Your task to perform on an android device: check the backup settings in the google photos Image 0: 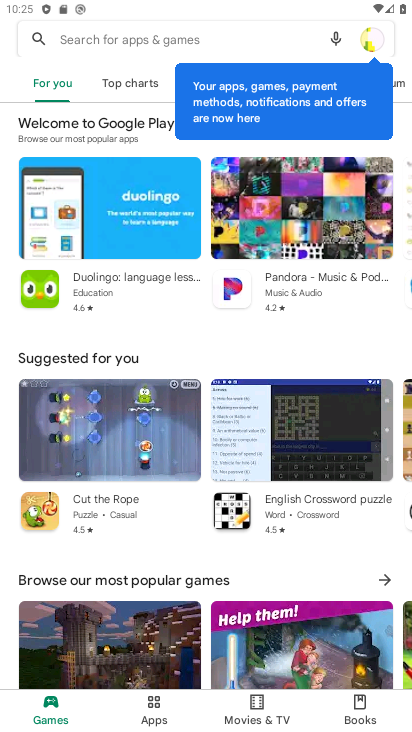
Step 0: press home button
Your task to perform on an android device: check the backup settings in the google photos Image 1: 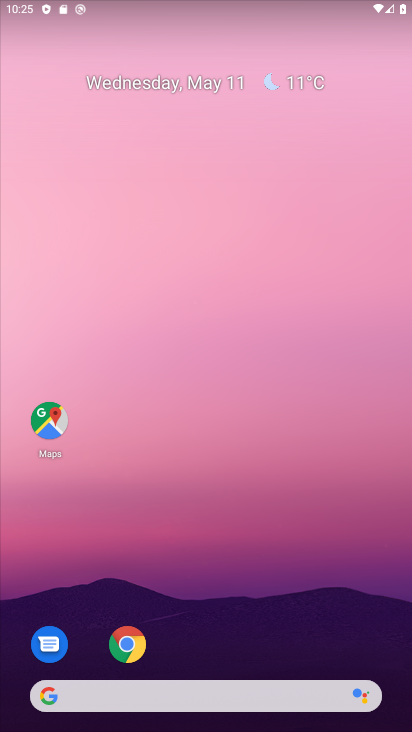
Step 1: drag from (225, 655) to (240, 132)
Your task to perform on an android device: check the backup settings in the google photos Image 2: 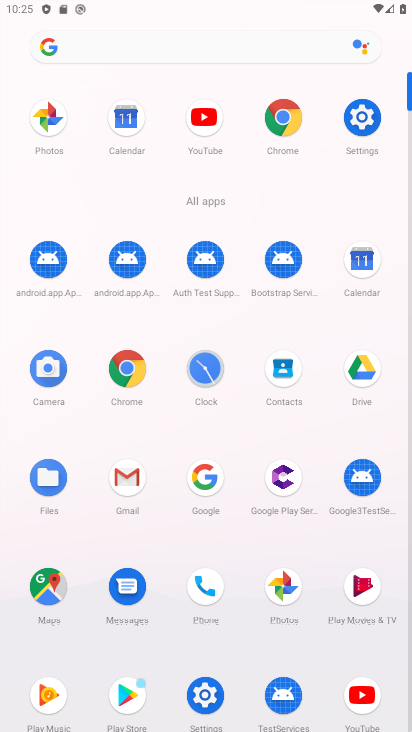
Step 2: click (283, 578)
Your task to perform on an android device: check the backup settings in the google photos Image 3: 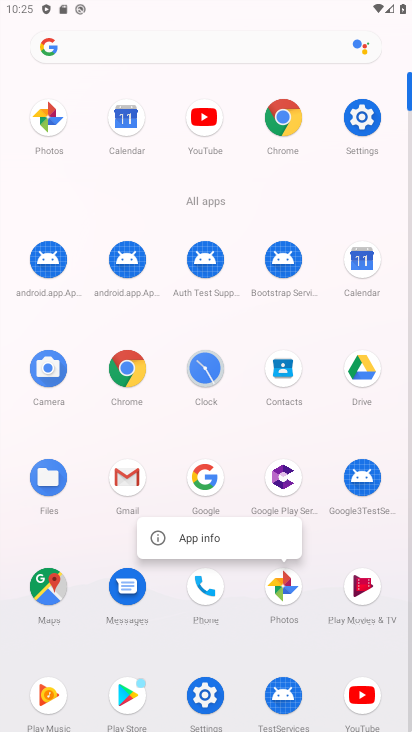
Step 3: click (287, 586)
Your task to perform on an android device: check the backup settings in the google photos Image 4: 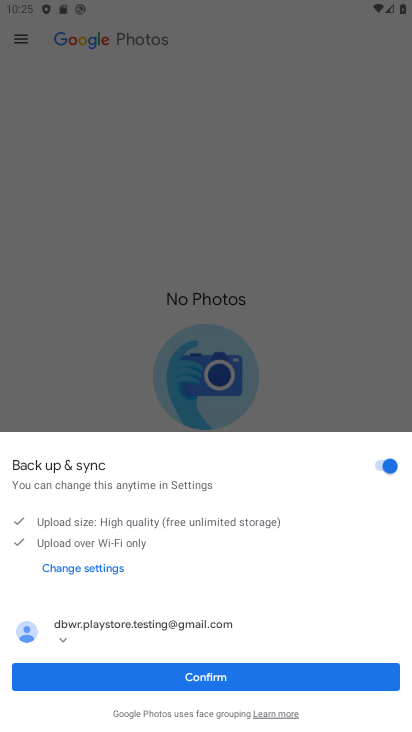
Step 4: click (206, 677)
Your task to perform on an android device: check the backup settings in the google photos Image 5: 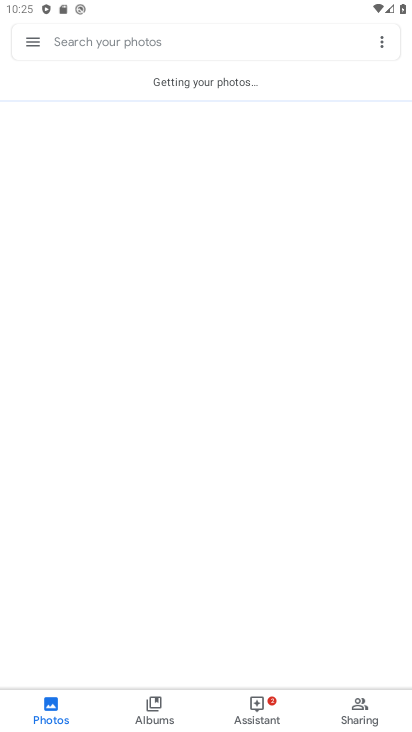
Step 5: click (27, 38)
Your task to perform on an android device: check the backup settings in the google photos Image 6: 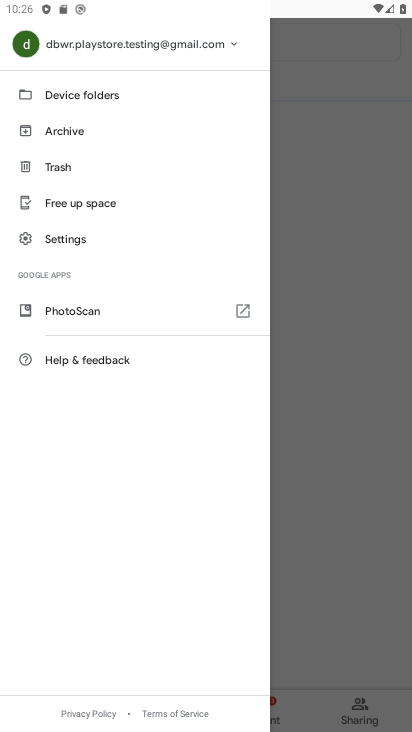
Step 6: click (68, 239)
Your task to perform on an android device: check the backup settings in the google photos Image 7: 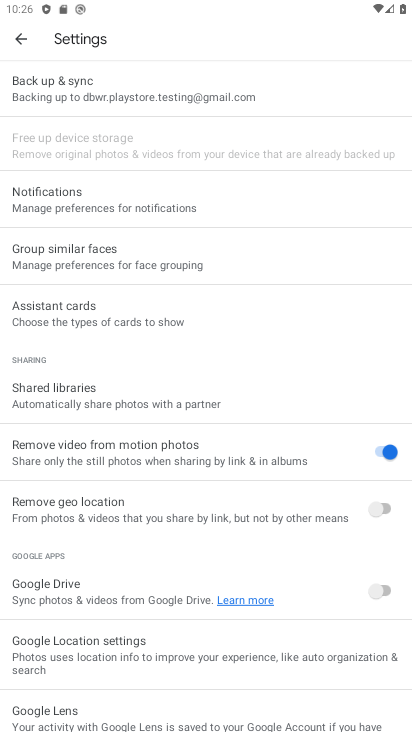
Step 7: click (94, 78)
Your task to perform on an android device: check the backup settings in the google photos Image 8: 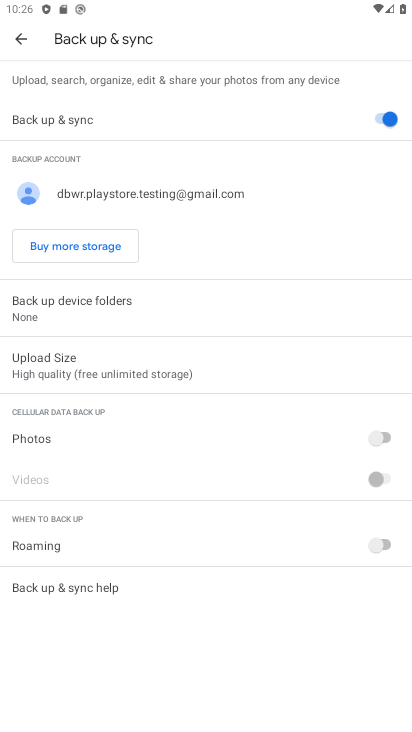
Step 8: click (206, 362)
Your task to perform on an android device: check the backup settings in the google photos Image 9: 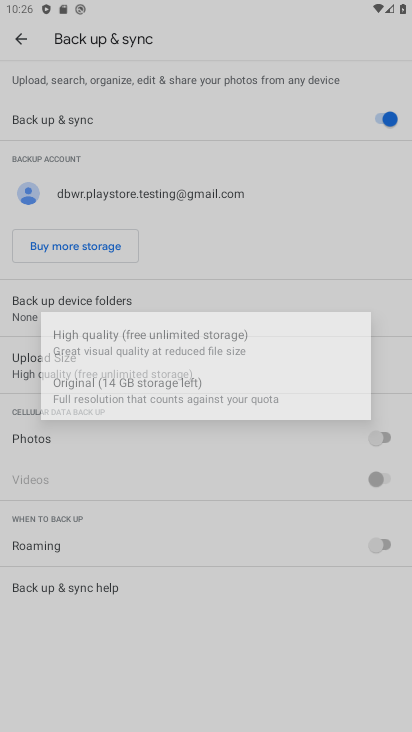
Step 9: click (209, 291)
Your task to perform on an android device: check the backup settings in the google photos Image 10: 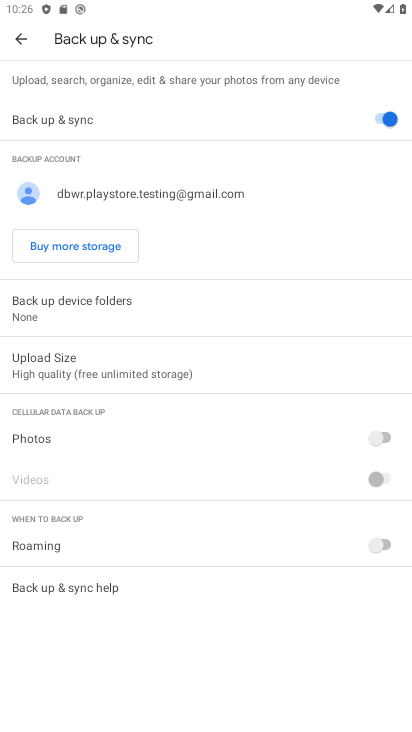
Step 10: task complete